Your task to perform on an android device: see tabs open on other devices in the chrome app Image 0: 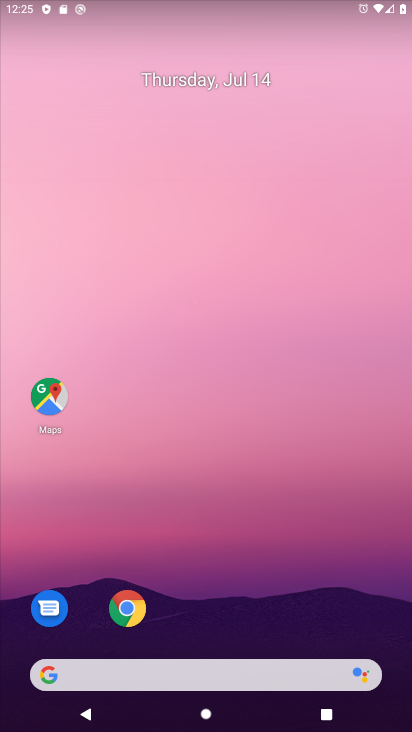
Step 0: click (129, 608)
Your task to perform on an android device: see tabs open on other devices in the chrome app Image 1: 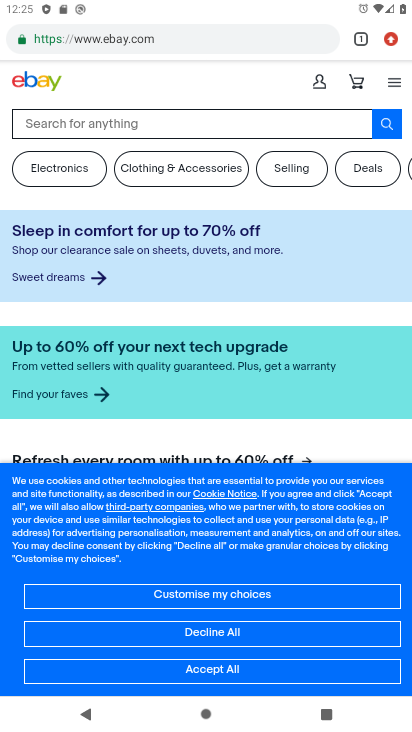
Step 1: click (391, 39)
Your task to perform on an android device: see tabs open on other devices in the chrome app Image 2: 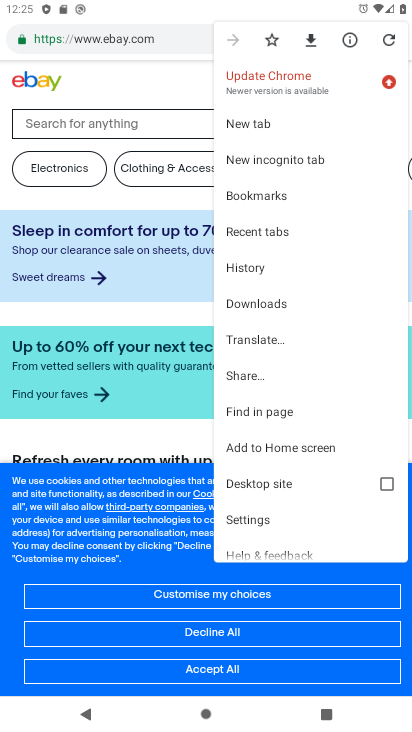
Step 2: click (274, 235)
Your task to perform on an android device: see tabs open on other devices in the chrome app Image 3: 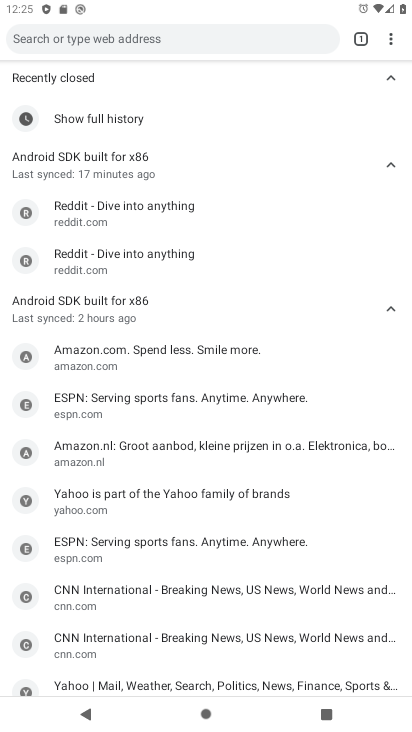
Step 3: task complete